Your task to perform on an android device: toggle javascript in the chrome app Image 0: 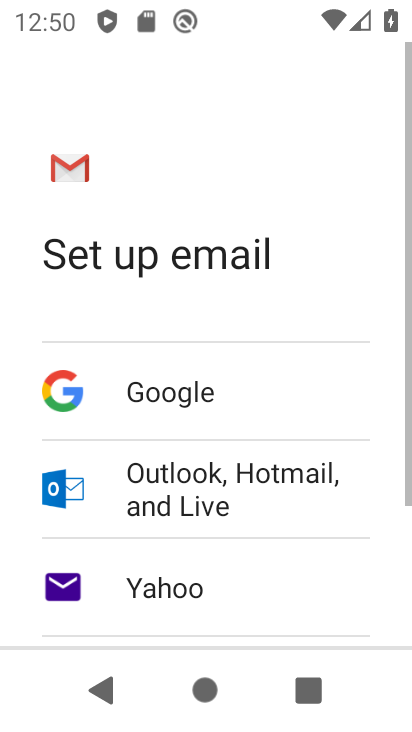
Step 0: press home button
Your task to perform on an android device: toggle javascript in the chrome app Image 1: 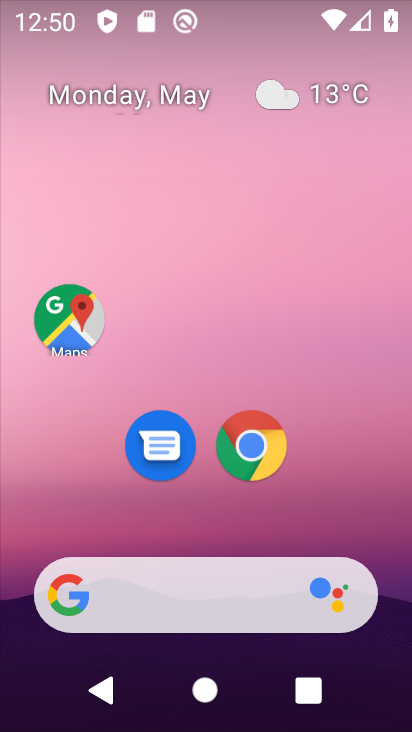
Step 1: click (250, 456)
Your task to perform on an android device: toggle javascript in the chrome app Image 2: 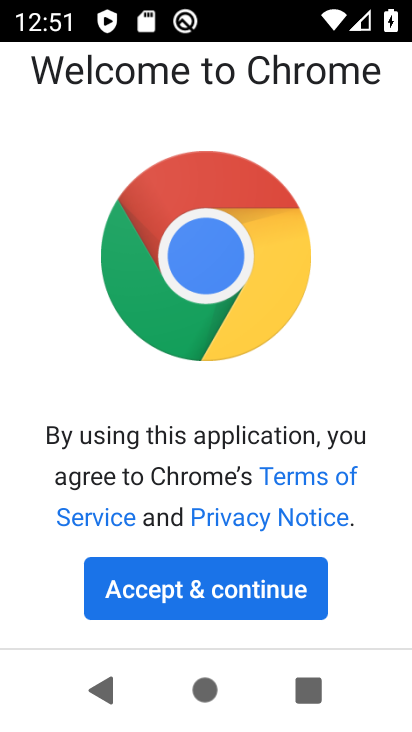
Step 2: click (227, 596)
Your task to perform on an android device: toggle javascript in the chrome app Image 3: 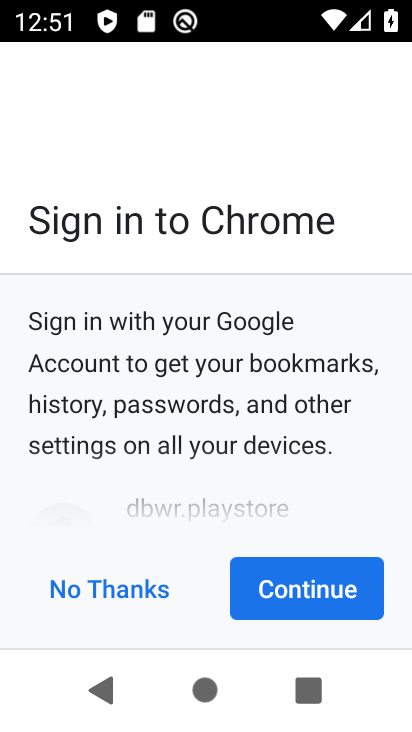
Step 3: click (297, 585)
Your task to perform on an android device: toggle javascript in the chrome app Image 4: 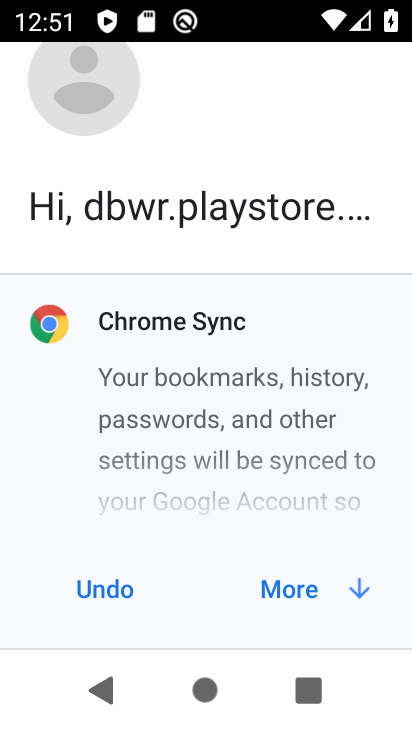
Step 4: click (296, 606)
Your task to perform on an android device: toggle javascript in the chrome app Image 5: 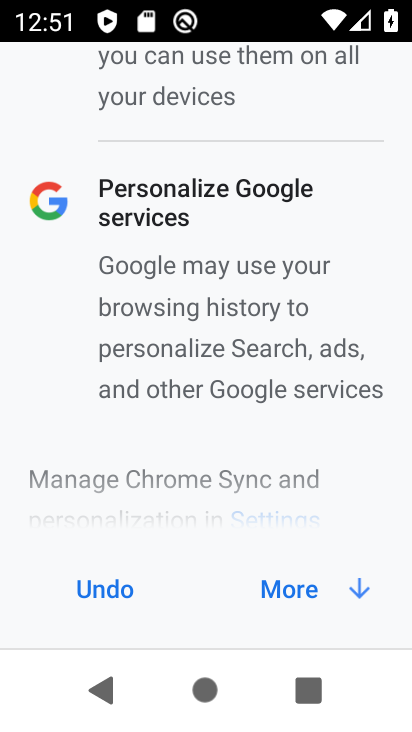
Step 5: click (274, 563)
Your task to perform on an android device: toggle javascript in the chrome app Image 6: 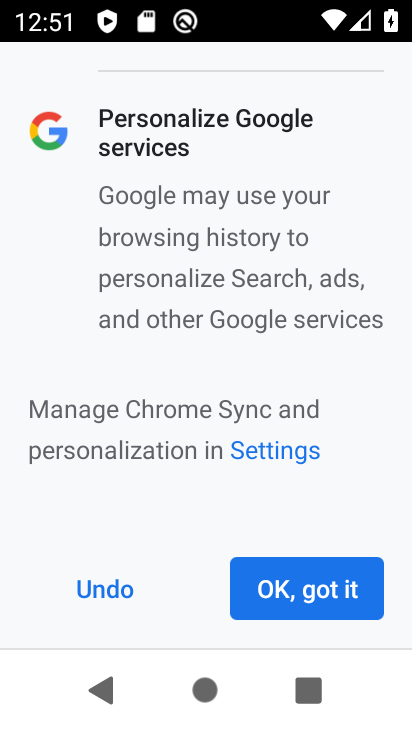
Step 6: click (282, 589)
Your task to perform on an android device: toggle javascript in the chrome app Image 7: 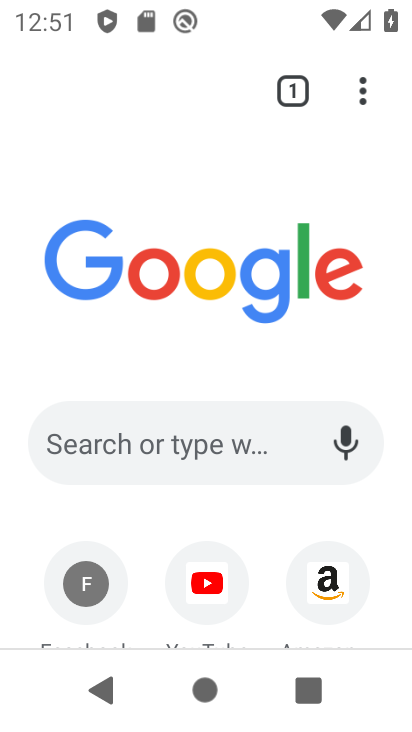
Step 7: click (365, 84)
Your task to perform on an android device: toggle javascript in the chrome app Image 8: 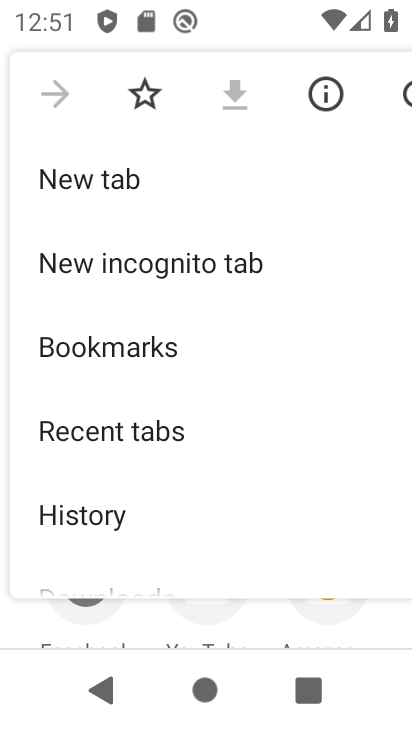
Step 8: click (359, 94)
Your task to perform on an android device: toggle javascript in the chrome app Image 9: 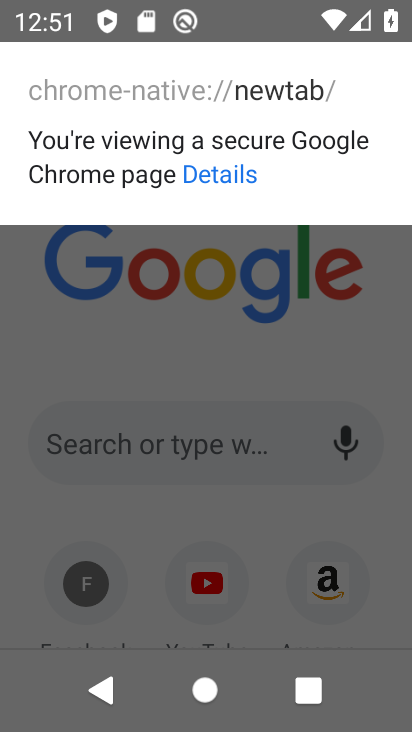
Step 9: click (213, 303)
Your task to perform on an android device: toggle javascript in the chrome app Image 10: 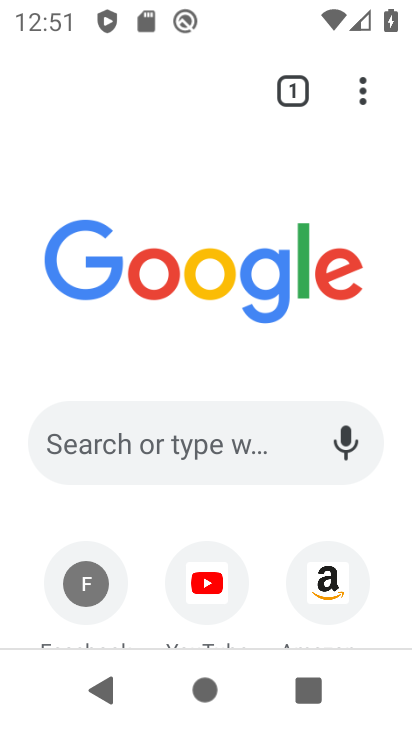
Step 10: click (359, 96)
Your task to perform on an android device: toggle javascript in the chrome app Image 11: 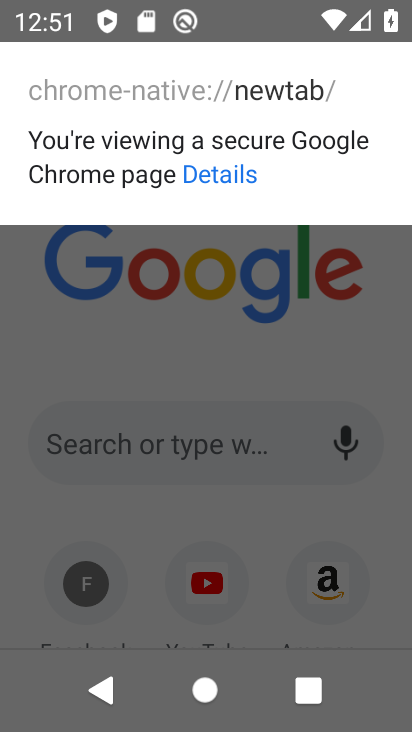
Step 11: click (298, 418)
Your task to perform on an android device: toggle javascript in the chrome app Image 12: 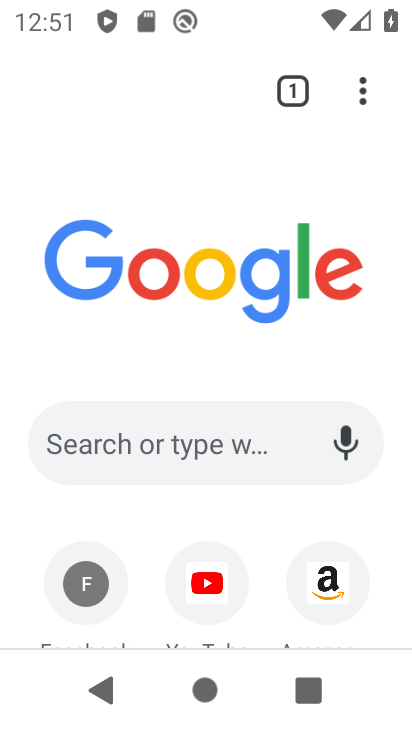
Step 12: click (360, 87)
Your task to perform on an android device: toggle javascript in the chrome app Image 13: 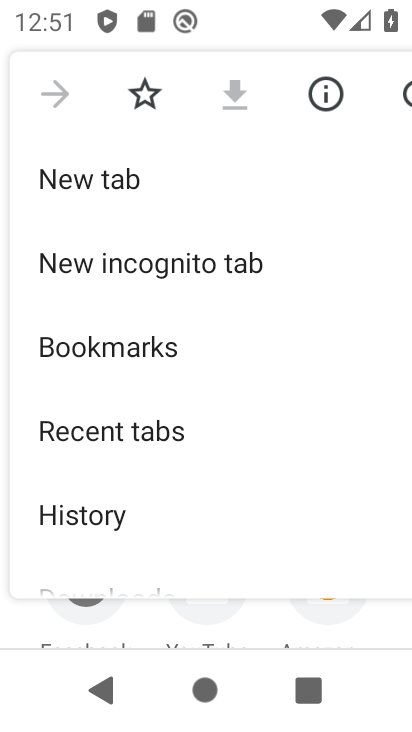
Step 13: drag from (186, 525) to (195, 213)
Your task to perform on an android device: toggle javascript in the chrome app Image 14: 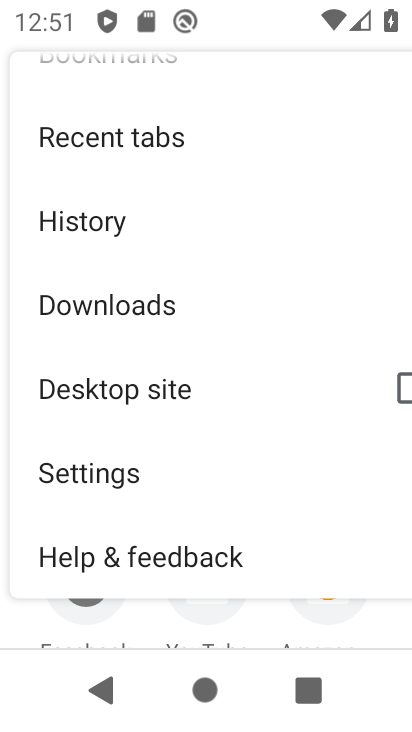
Step 14: click (113, 478)
Your task to perform on an android device: toggle javascript in the chrome app Image 15: 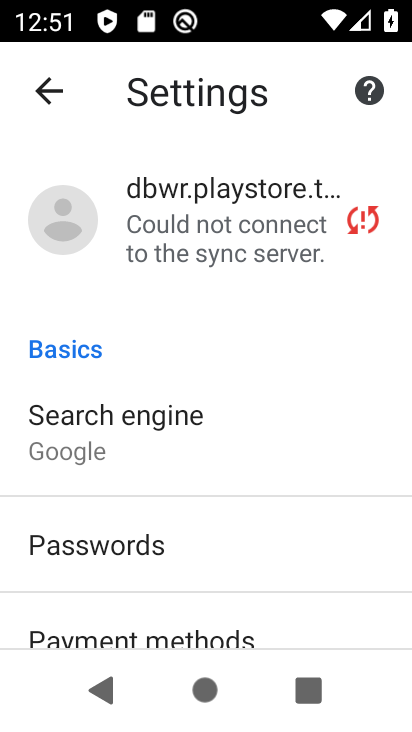
Step 15: drag from (143, 579) to (191, 234)
Your task to perform on an android device: toggle javascript in the chrome app Image 16: 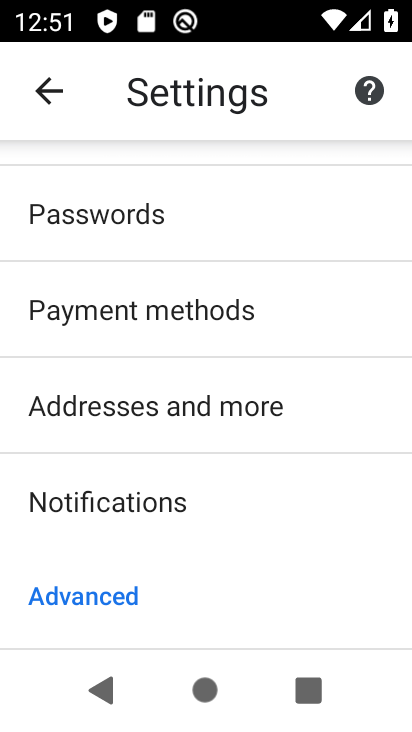
Step 16: drag from (180, 525) to (206, 216)
Your task to perform on an android device: toggle javascript in the chrome app Image 17: 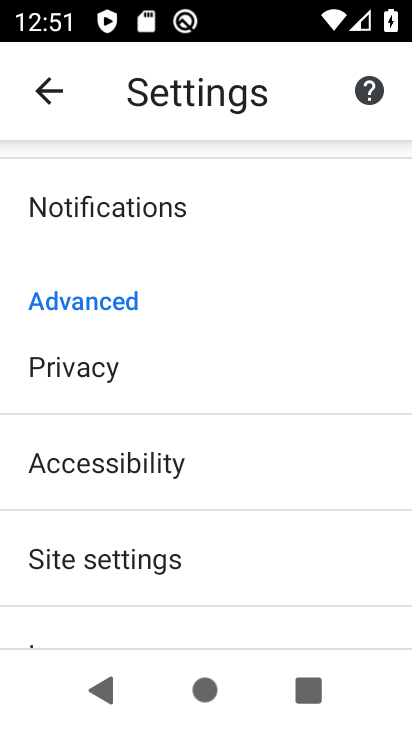
Step 17: click (126, 555)
Your task to perform on an android device: toggle javascript in the chrome app Image 18: 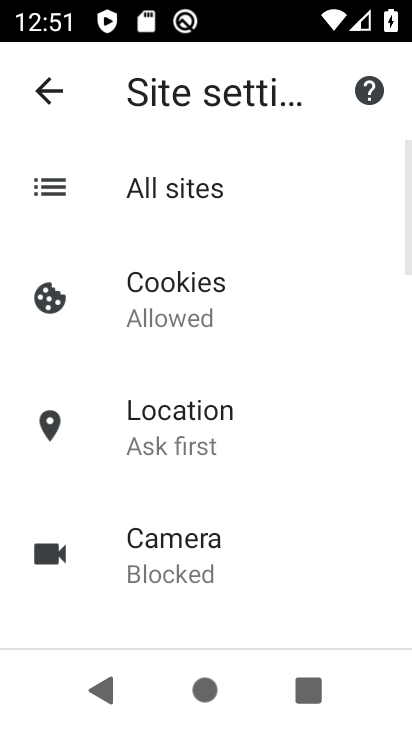
Step 18: drag from (133, 569) to (218, 206)
Your task to perform on an android device: toggle javascript in the chrome app Image 19: 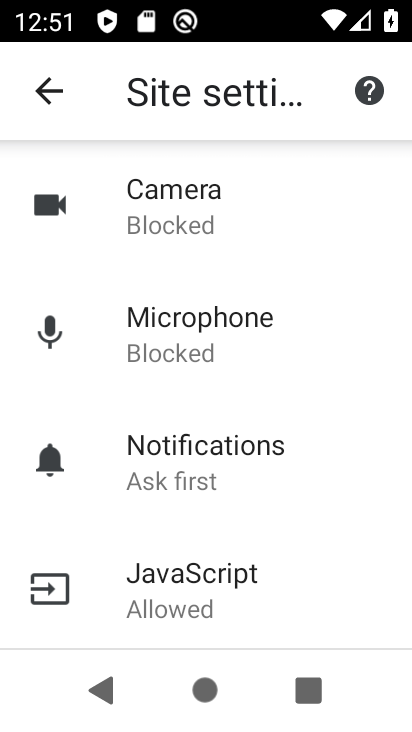
Step 19: click (146, 586)
Your task to perform on an android device: toggle javascript in the chrome app Image 20: 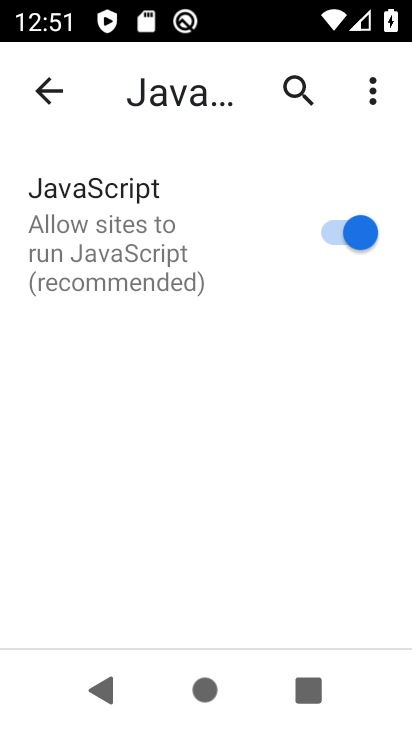
Step 20: click (326, 224)
Your task to perform on an android device: toggle javascript in the chrome app Image 21: 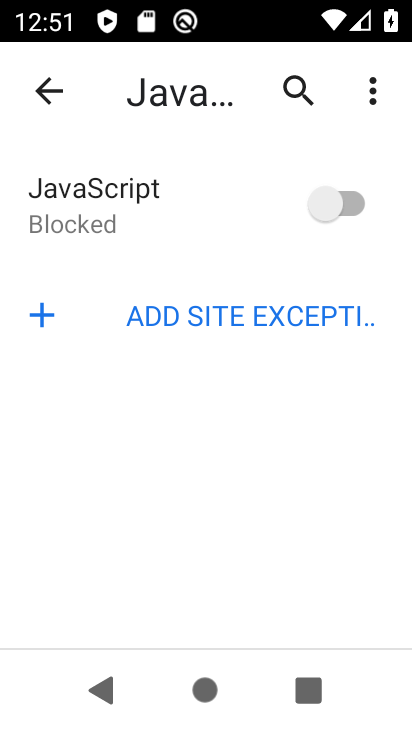
Step 21: task complete